Your task to perform on an android device: turn on wifi Image 0: 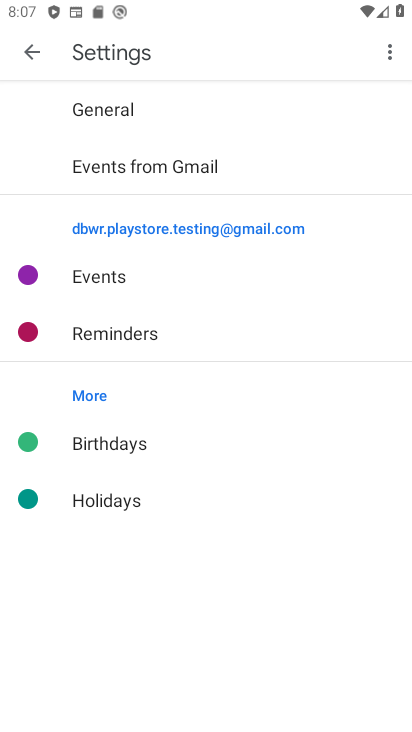
Step 0: press home button
Your task to perform on an android device: turn on wifi Image 1: 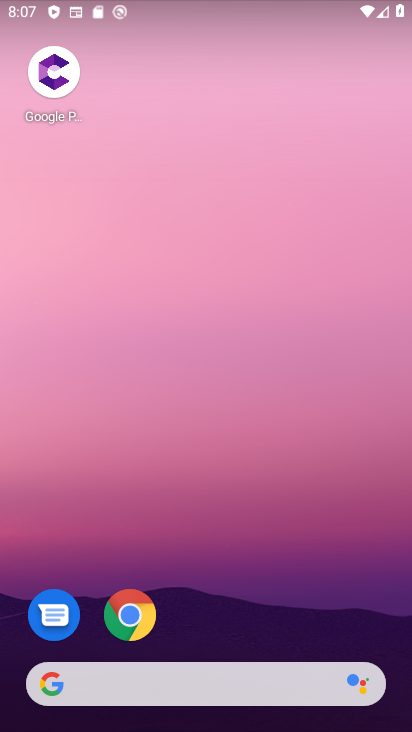
Step 1: drag from (205, 668) to (179, 332)
Your task to perform on an android device: turn on wifi Image 2: 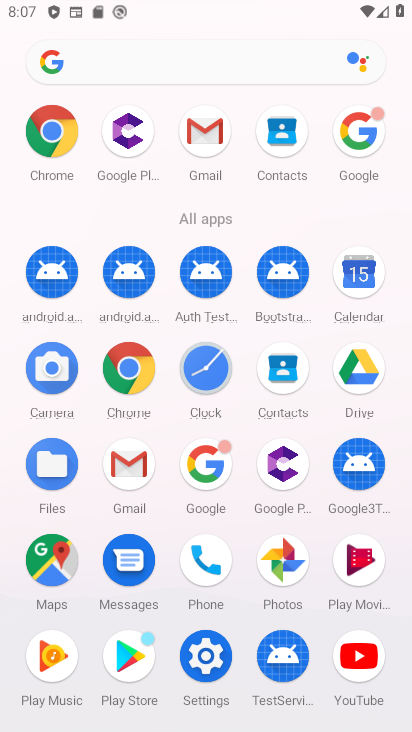
Step 2: click (201, 653)
Your task to perform on an android device: turn on wifi Image 3: 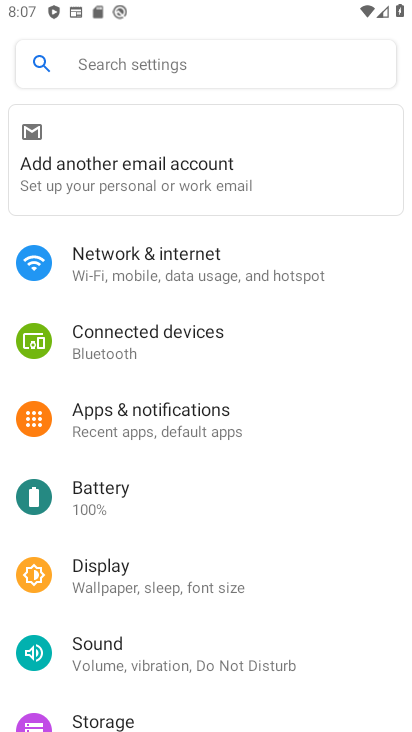
Step 3: click (198, 274)
Your task to perform on an android device: turn on wifi Image 4: 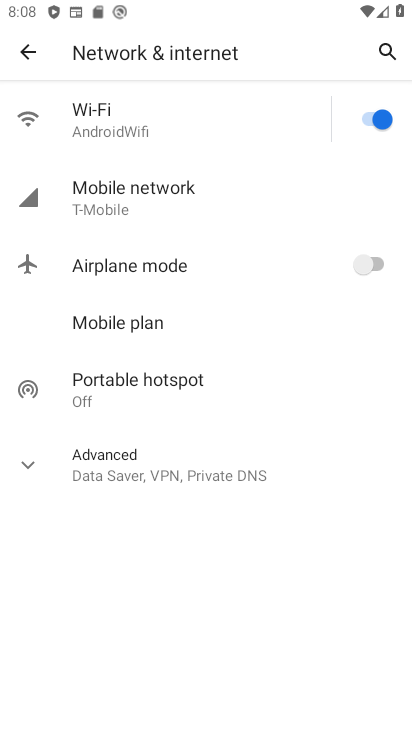
Step 4: task complete